Your task to perform on an android device: make emails show in primary in the gmail app Image 0: 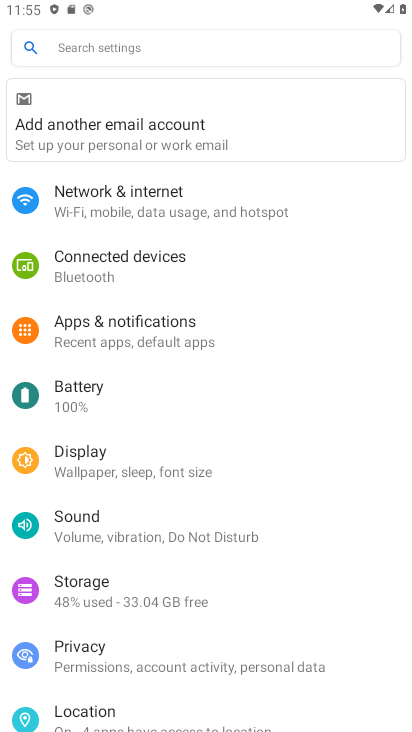
Step 0: press home button
Your task to perform on an android device: make emails show in primary in the gmail app Image 1: 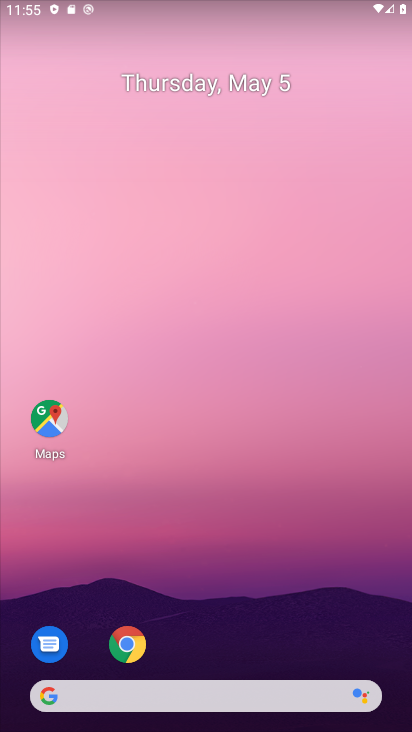
Step 1: drag from (14, 494) to (139, 231)
Your task to perform on an android device: make emails show in primary in the gmail app Image 2: 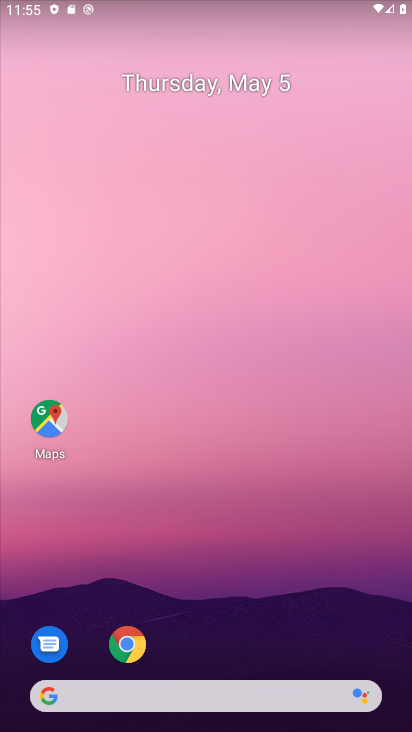
Step 2: drag from (18, 537) to (216, 173)
Your task to perform on an android device: make emails show in primary in the gmail app Image 3: 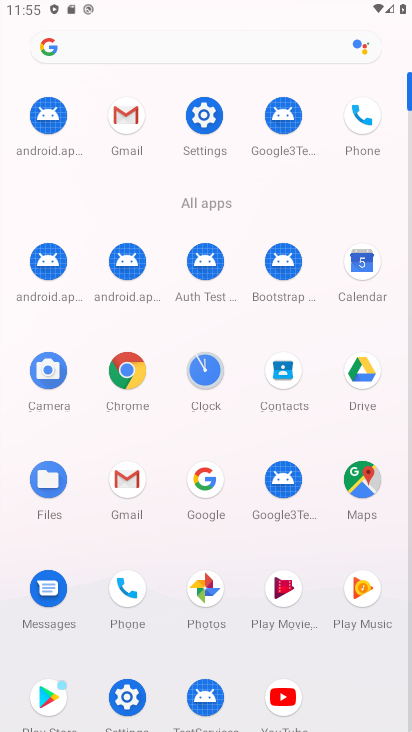
Step 3: click (116, 115)
Your task to perform on an android device: make emails show in primary in the gmail app Image 4: 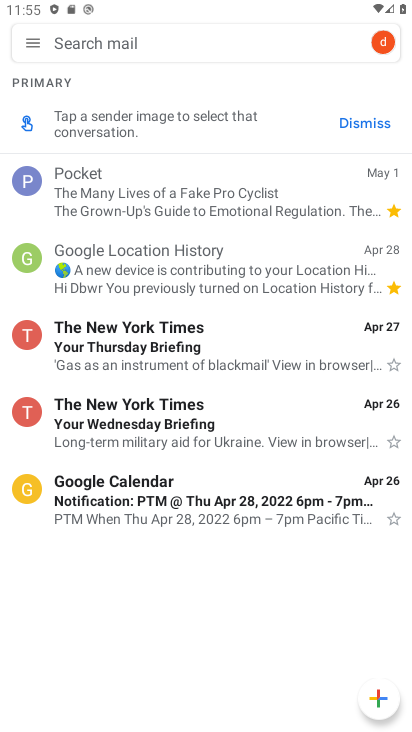
Step 4: click (29, 35)
Your task to perform on an android device: make emails show in primary in the gmail app Image 5: 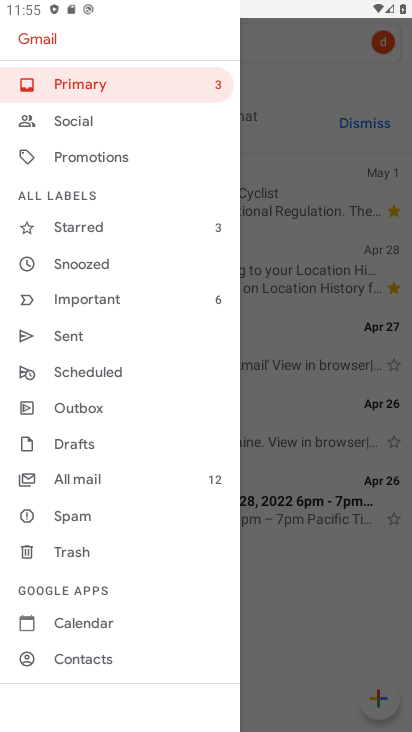
Step 5: click (128, 85)
Your task to perform on an android device: make emails show in primary in the gmail app Image 6: 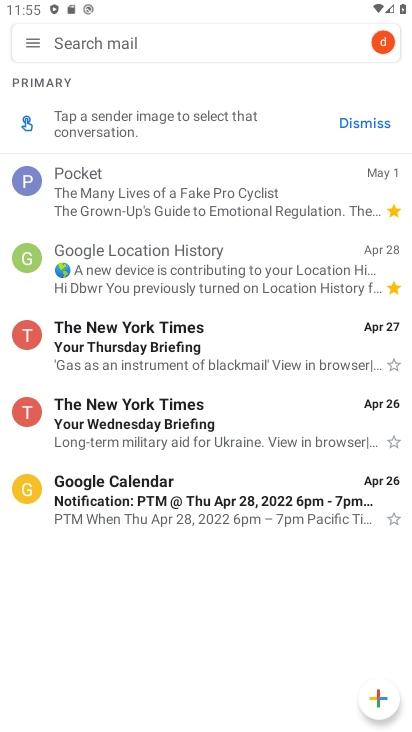
Step 6: task complete